Your task to perform on an android device: Go to Yahoo.com Image 0: 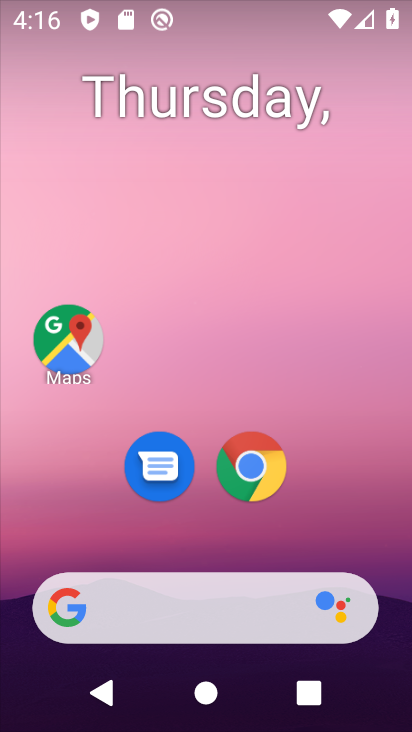
Step 0: click (216, 58)
Your task to perform on an android device: Go to Yahoo.com Image 1: 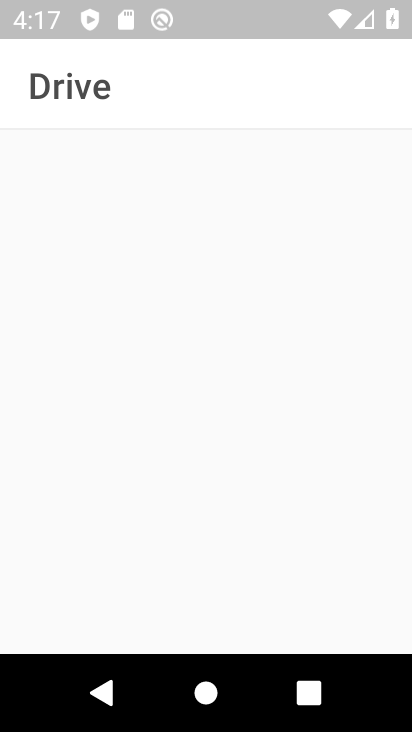
Step 1: press home button
Your task to perform on an android device: Go to Yahoo.com Image 2: 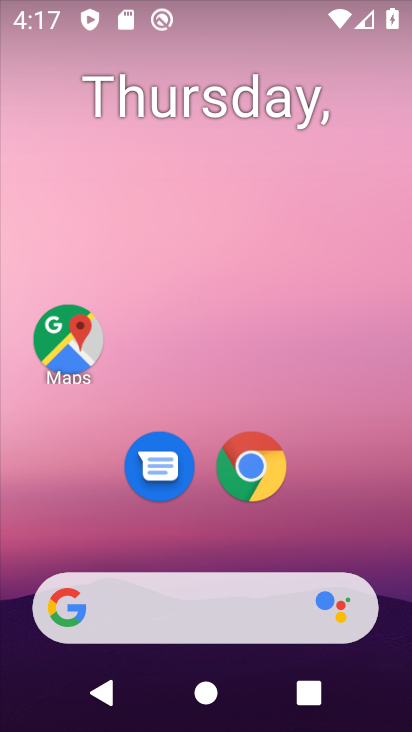
Step 2: click (245, 457)
Your task to perform on an android device: Go to Yahoo.com Image 3: 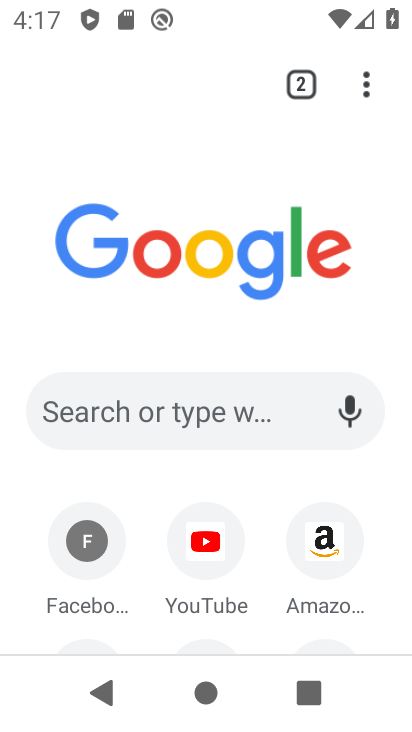
Step 3: drag from (266, 502) to (254, 61)
Your task to perform on an android device: Go to Yahoo.com Image 4: 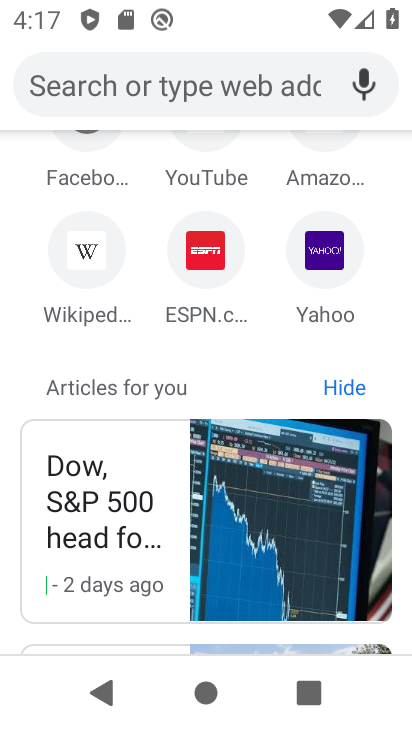
Step 4: drag from (204, 356) to (225, 651)
Your task to perform on an android device: Go to Yahoo.com Image 5: 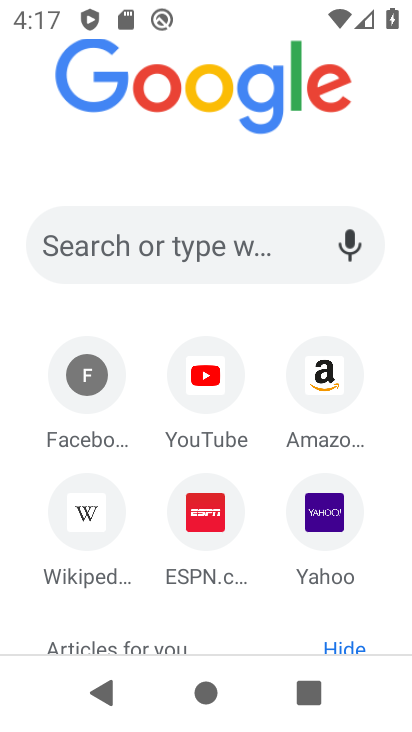
Step 5: click (321, 510)
Your task to perform on an android device: Go to Yahoo.com Image 6: 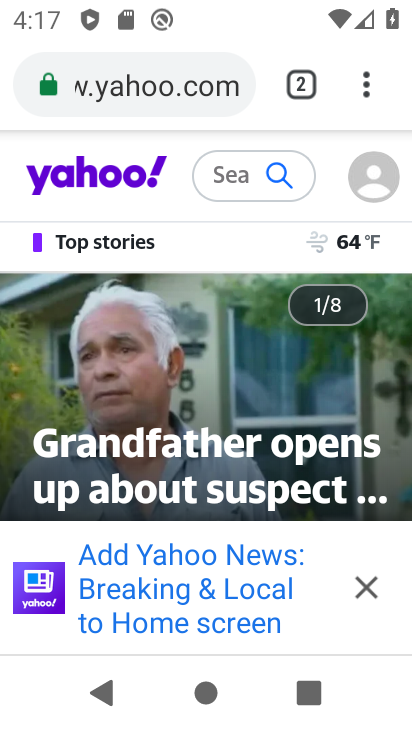
Step 6: click (362, 581)
Your task to perform on an android device: Go to Yahoo.com Image 7: 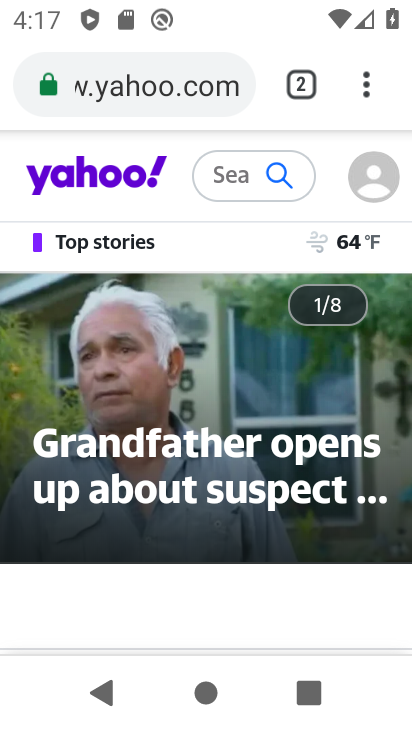
Step 7: task complete